Your task to perform on an android device: find snoozed emails in the gmail app Image 0: 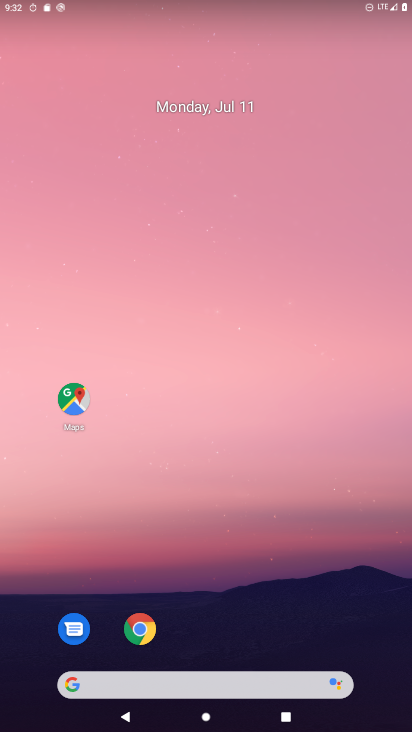
Step 0: drag from (212, 640) to (194, 45)
Your task to perform on an android device: find snoozed emails in the gmail app Image 1: 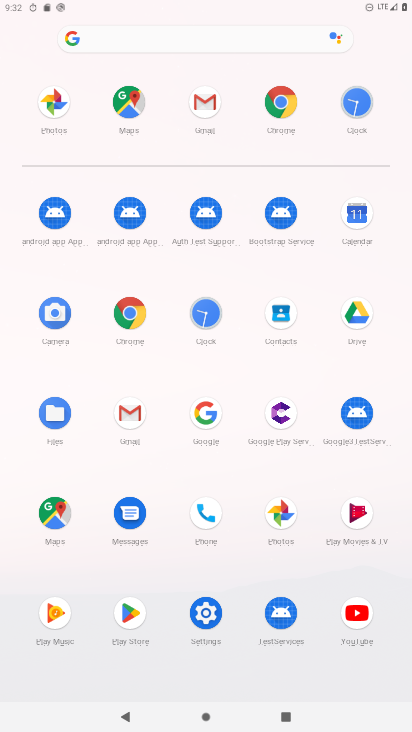
Step 1: click (197, 104)
Your task to perform on an android device: find snoozed emails in the gmail app Image 2: 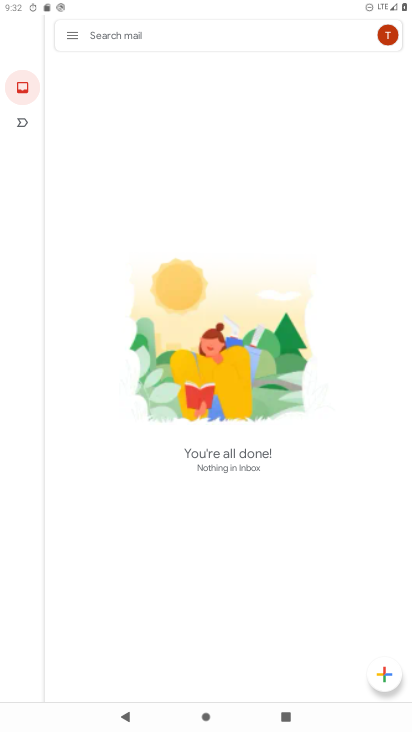
Step 2: click (77, 44)
Your task to perform on an android device: find snoozed emails in the gmail app Image 3: 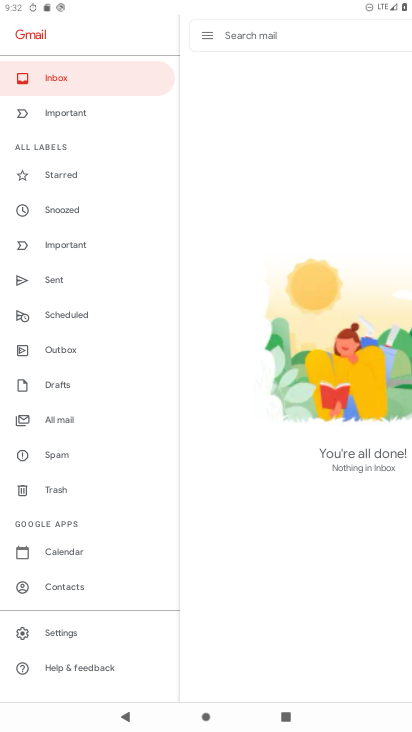
Step 3: click (61, 206)
Your task to perform on an android device: find snoozed emails in the gmail app Image 4: 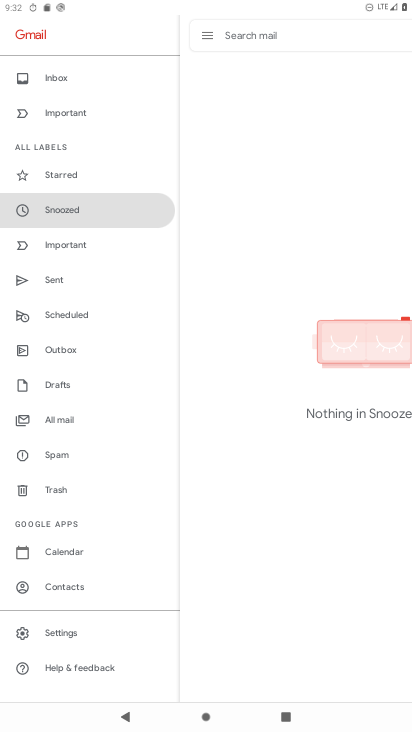
Step 4: task complete